Your task to perform on an android device: Open Maps and search for coffee Image 0: 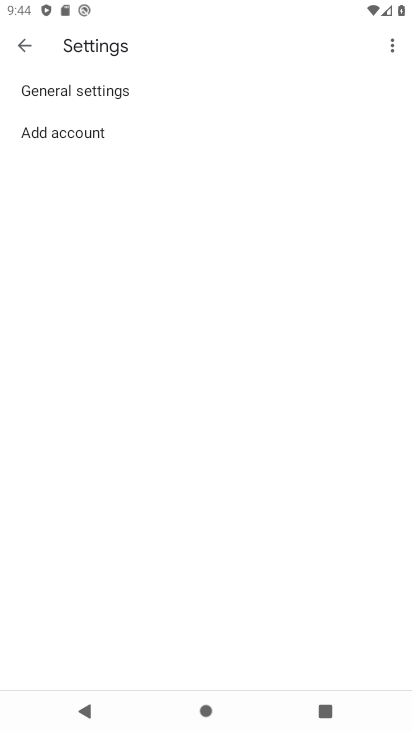
Step 0: press home button
Your task to perform on an android device: Open Maps and search for coffee Image 1: 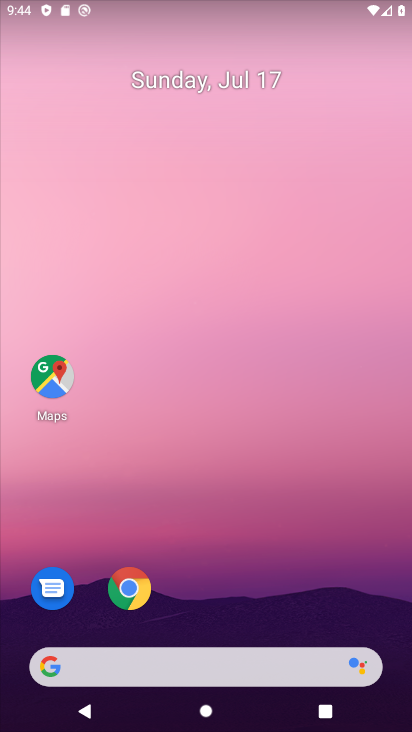
Step 1: drag from (192, 644) to (154, 36)
Your task to perform on an android device: Open Maps and search for coffee Image 2: 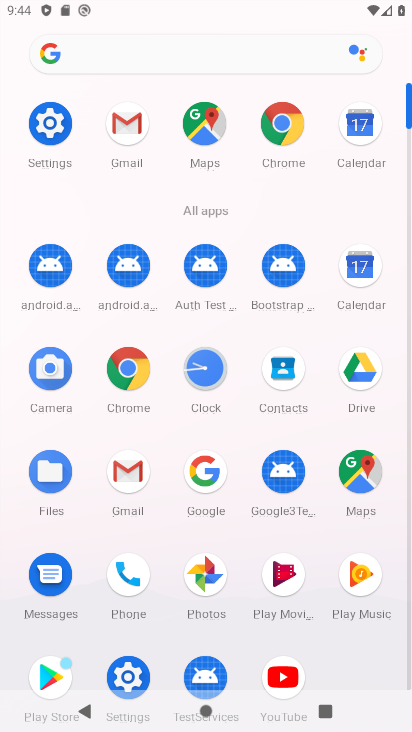
Step 2: click (349, 464)
Your task to perform on an android device: Open Maps and search for coffee Image 3: 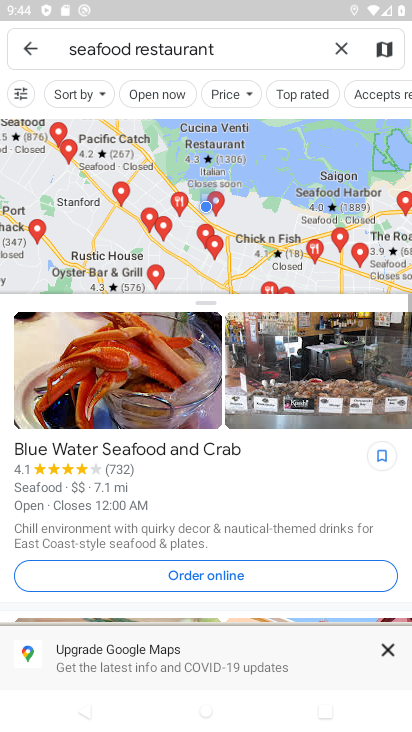
Step 3: click (17, 50)
Your task to perform on an android device: Open Maps and search for coffee Image 4: 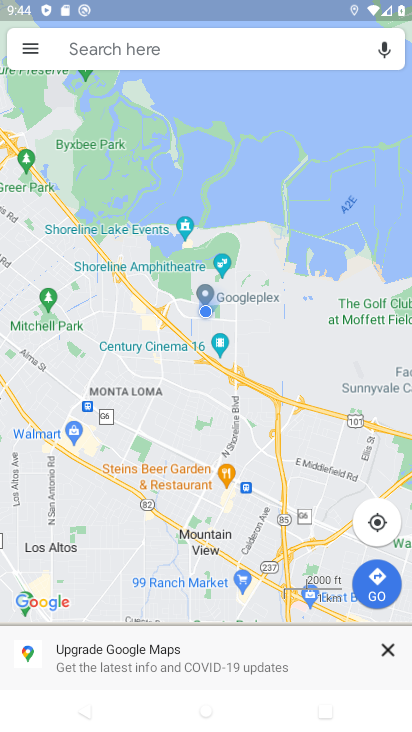
Step 4: click (142, 52)
Your task to perform on an android device: Open Maps and search for coffee Image 5: 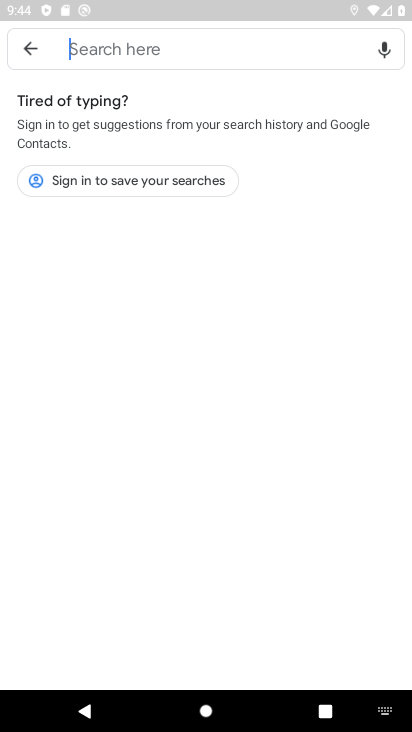
Step 5: type "coffee"
Your task to perform on an android device: Open Maps and search for coffee Image 6: 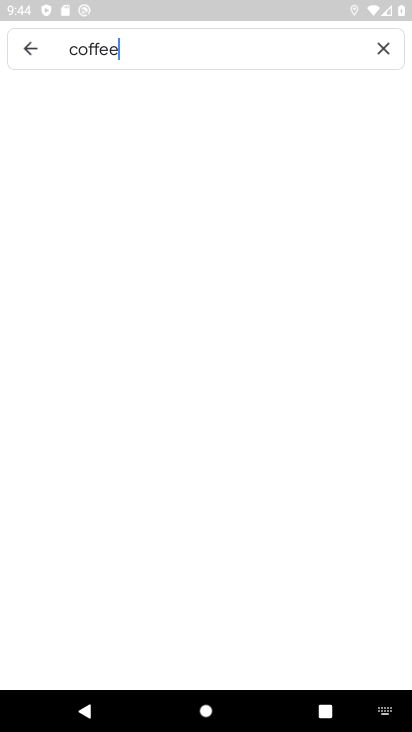
Step 6: type ""
Your task to perform on an android device: Open Maps and search for coffee Image 7: 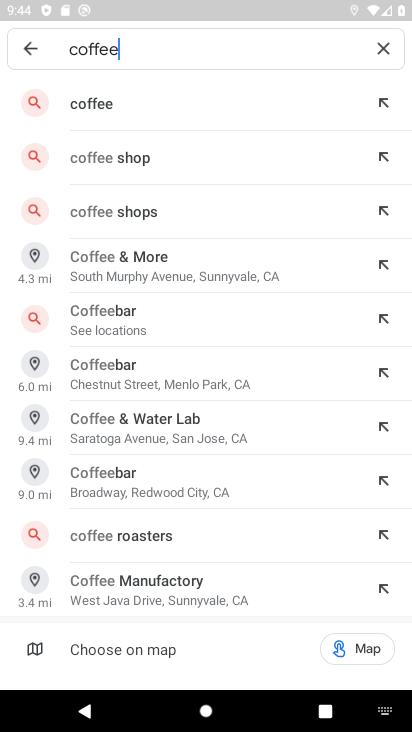
Step 7: click (89, 93)
Your task to perform on an android device: Open Maps and search for coffee Image 8: 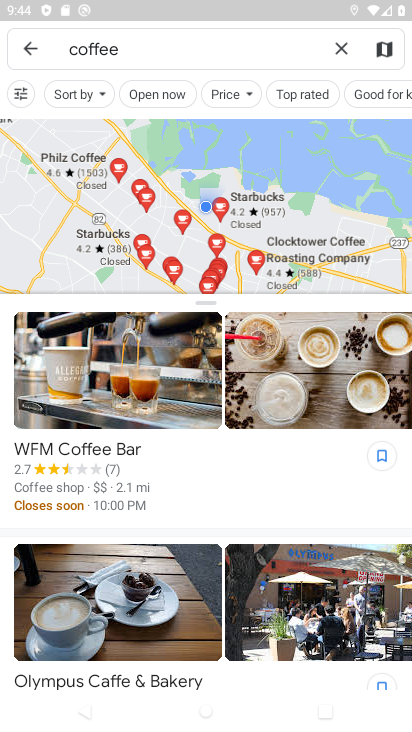
Step 8: task complete